Your task to perform on an android device: change notification settings in the gmail app Image 0: 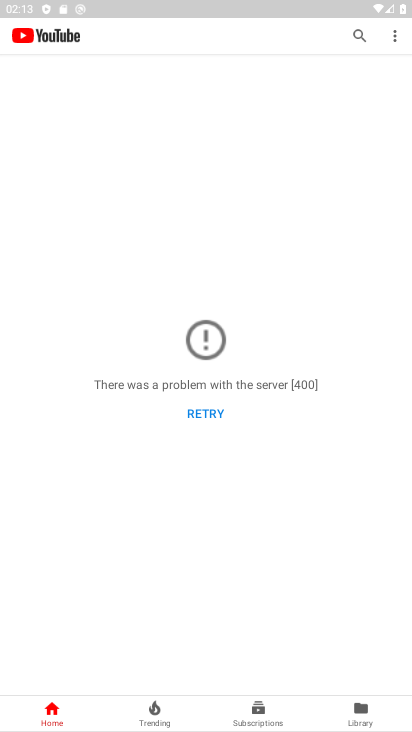
Step 0: press back button
Your task to perform on an android device: change notification settings in the gmail app Image 1: 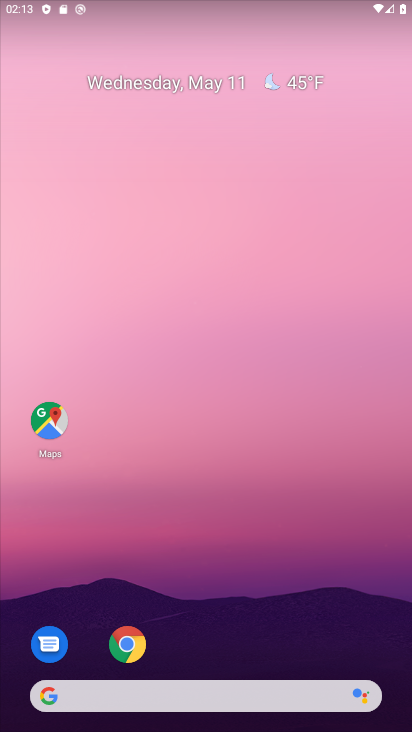
Step 1: drag from (209, 646) to (267, 126)
Your task to perform on an android device: change notification settings in the gmail app Image 2: 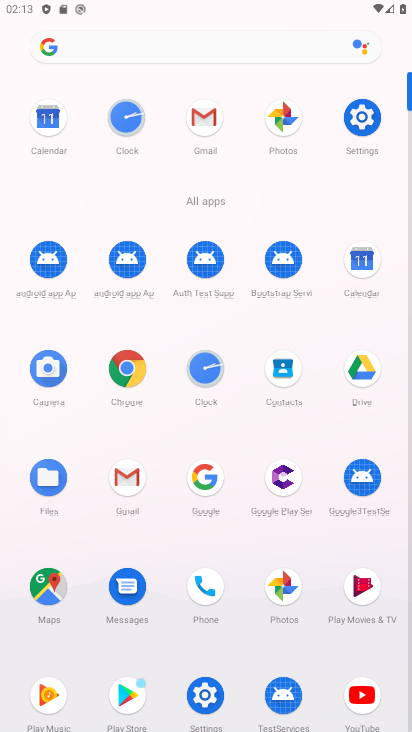
Step 2: click (201, 110)
Your task to perform on an android device: change notification settings in the gmail app Image 3: 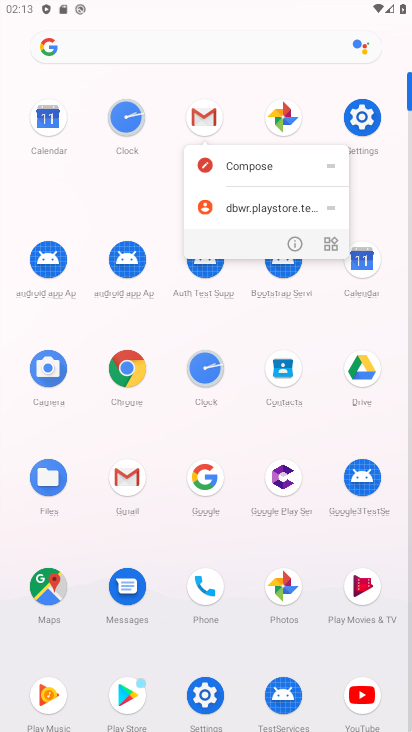
Step 3: click (296, 238)
Your task to perform on an android device: change notification settings in the gmail app Image 4: 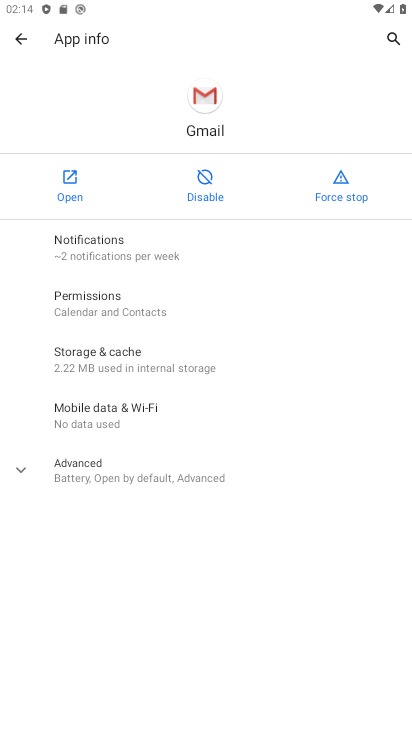
Step 4: click (65, 247)
Your task to perform on an android device: change notification settings in the gmail app Image 5: 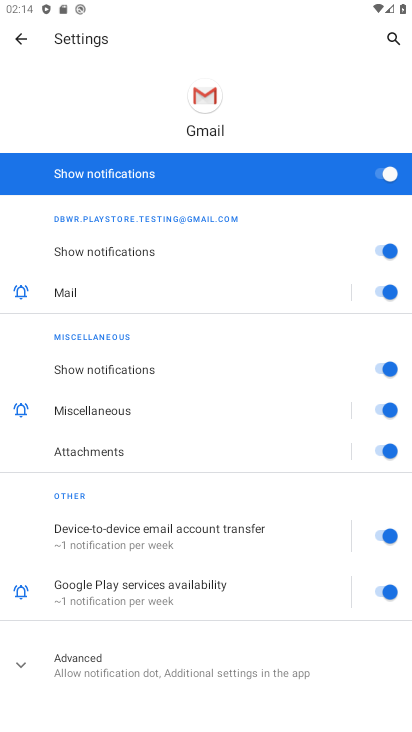
Step 5: click (387, 374)
Your task to perform on an android device: change notification settings in the gmail app Image 6: 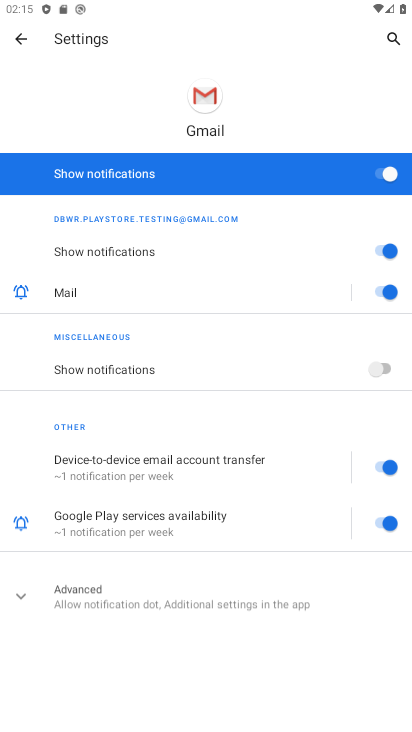
Step 6: task complete